Your task to perform on an android device: open app "eBay: The shopping marketplace" Image 0: 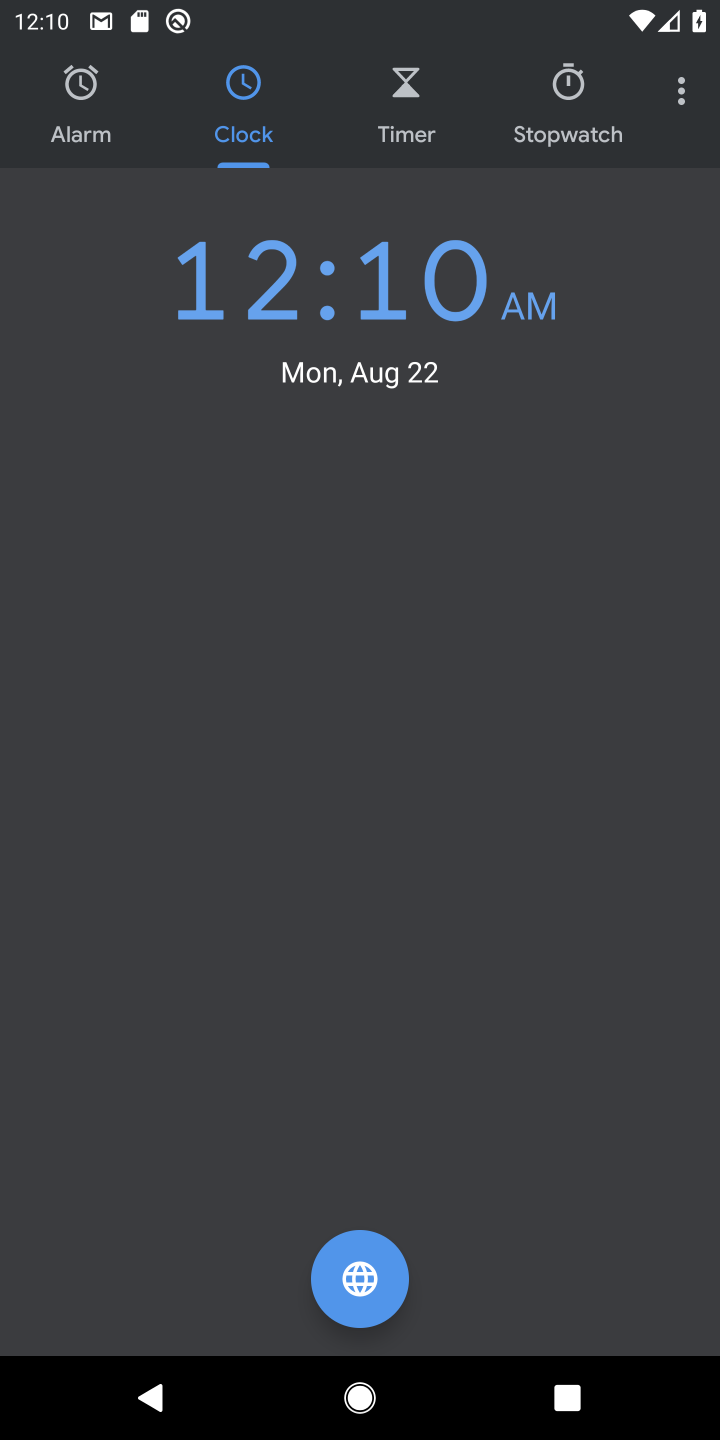
Step 0: press home button
Your task to perform on an android device: open app "eBay: The shopping marketplace" Image 1: 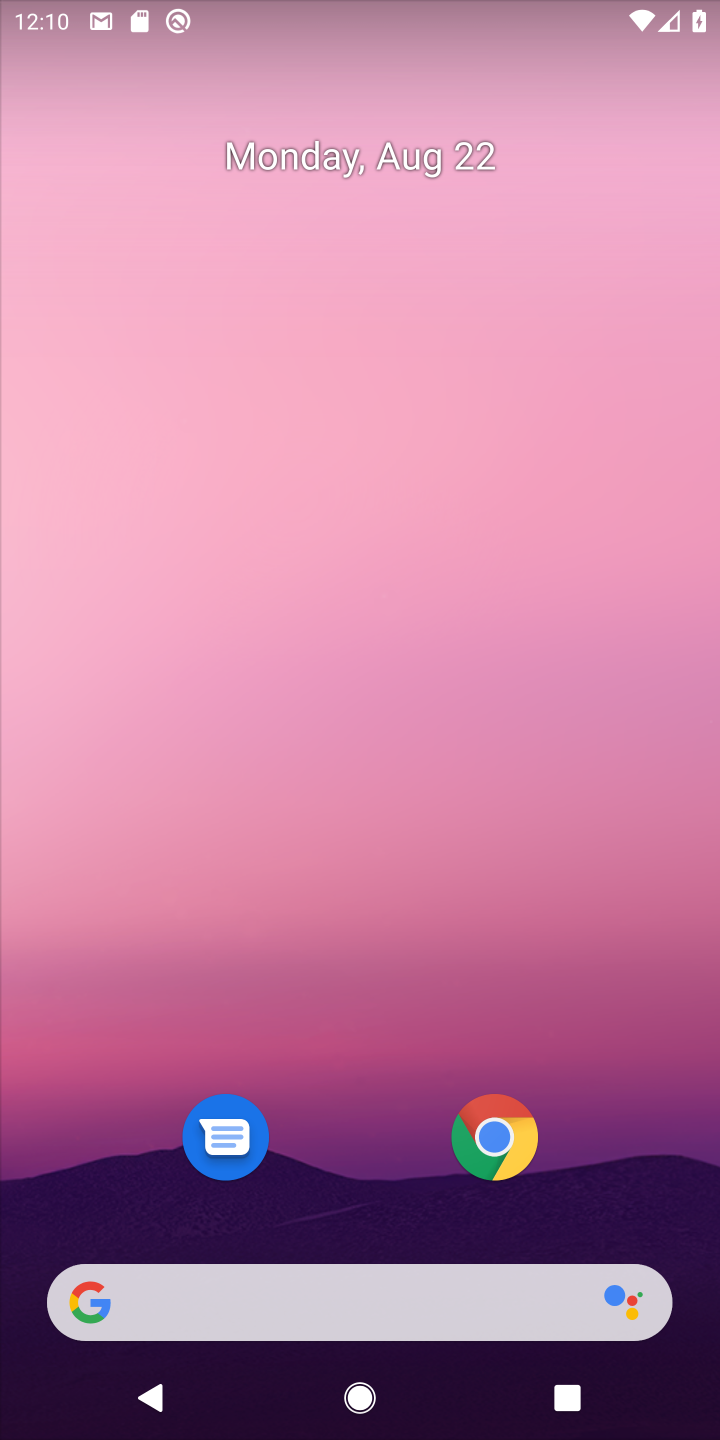
Step 1: drag from (664, 1211) to (538, 104)
Your task to perform on an android device: open app "eBay: The shopping marketplace" Image 2: 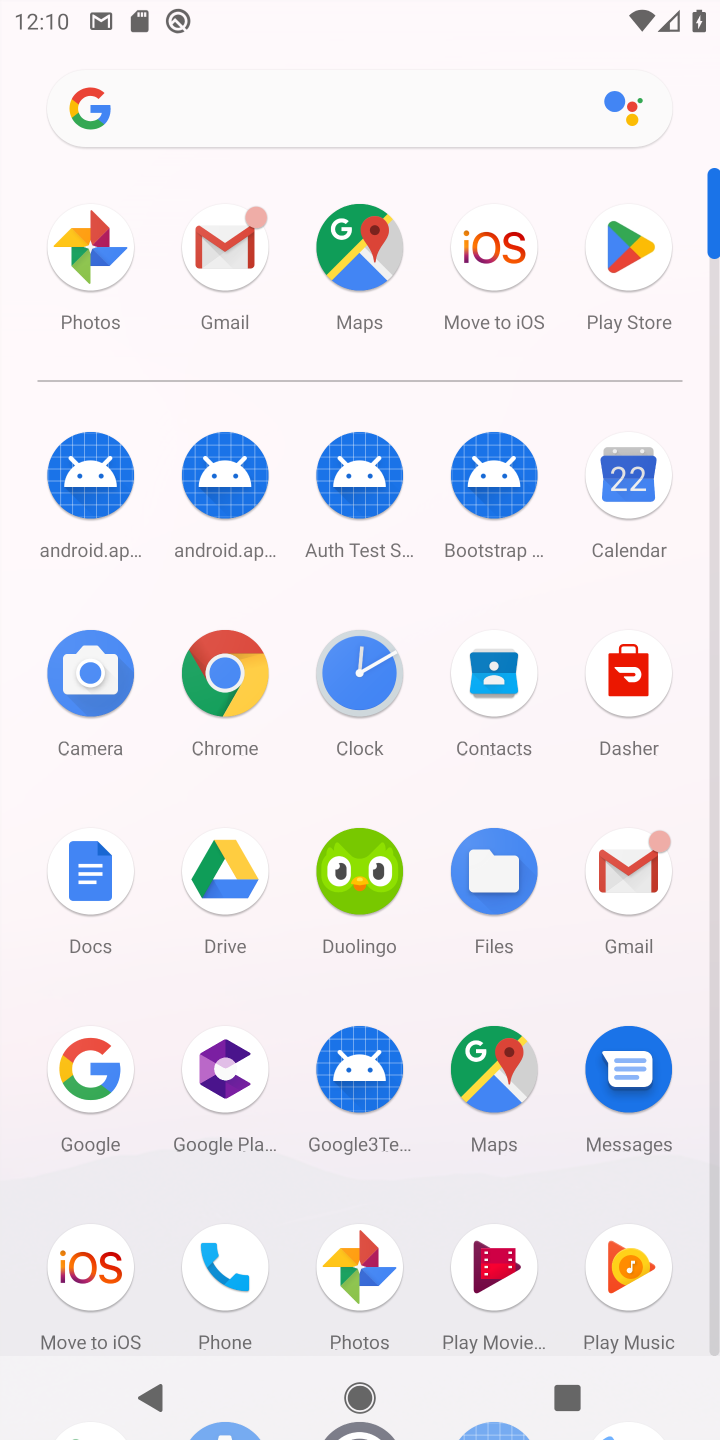
Step 2: drag from (562, 1193) to (503, 501)
Your task to perform on an android device: open app "eBay: The shopping marketplace" Image 3: 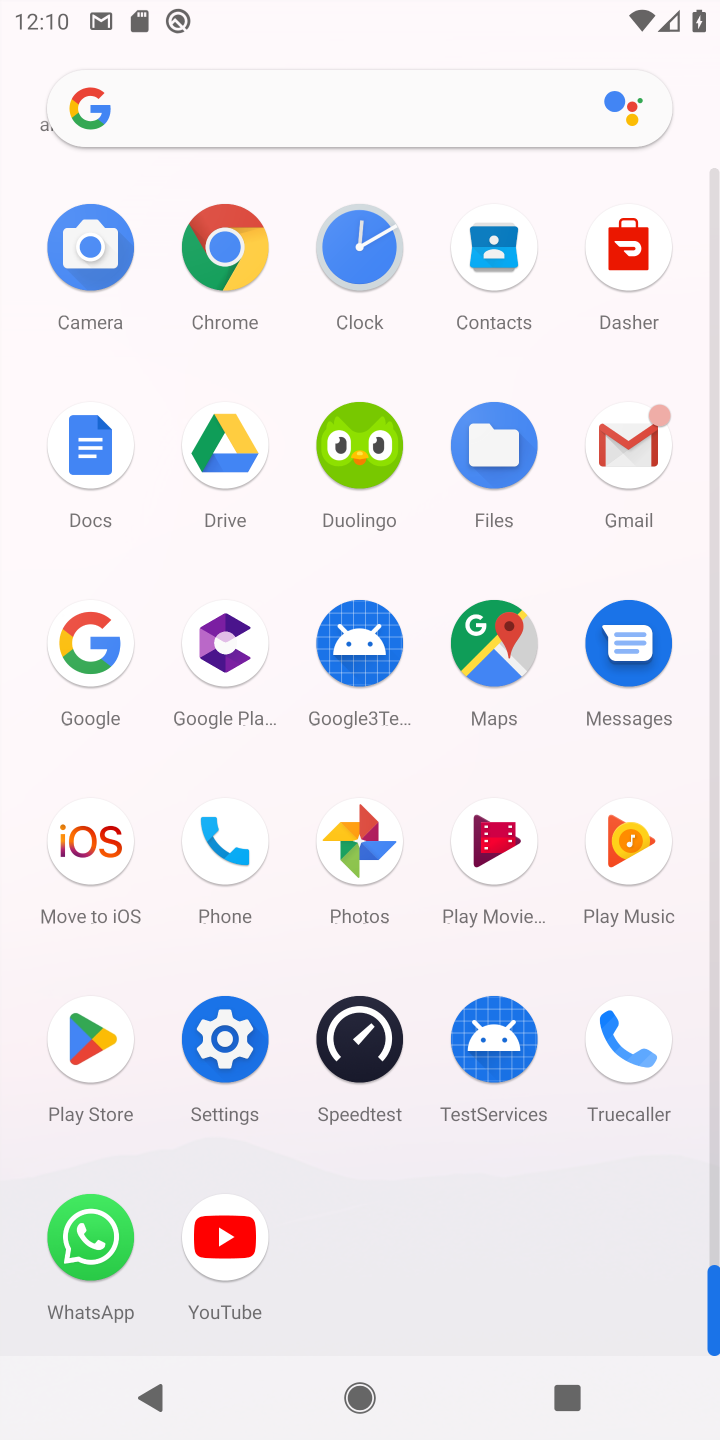
Step 3: click (96, 1042)
Your task to perform on an android device: open app "eBay: The shopping marketplace" Image 4: 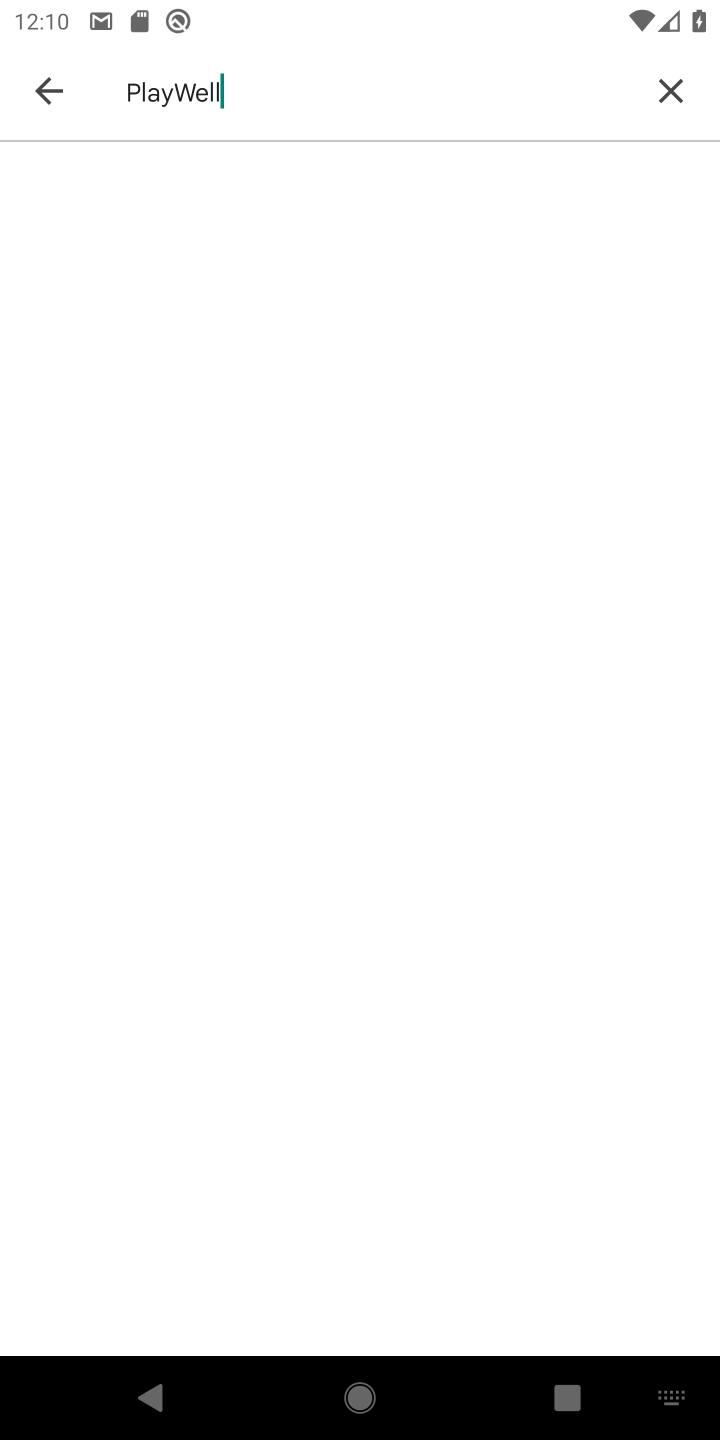
Step 4: click (668, 86)
Your task to perform on an android device: open app "eBay: The shopping marketplace" Image 5: 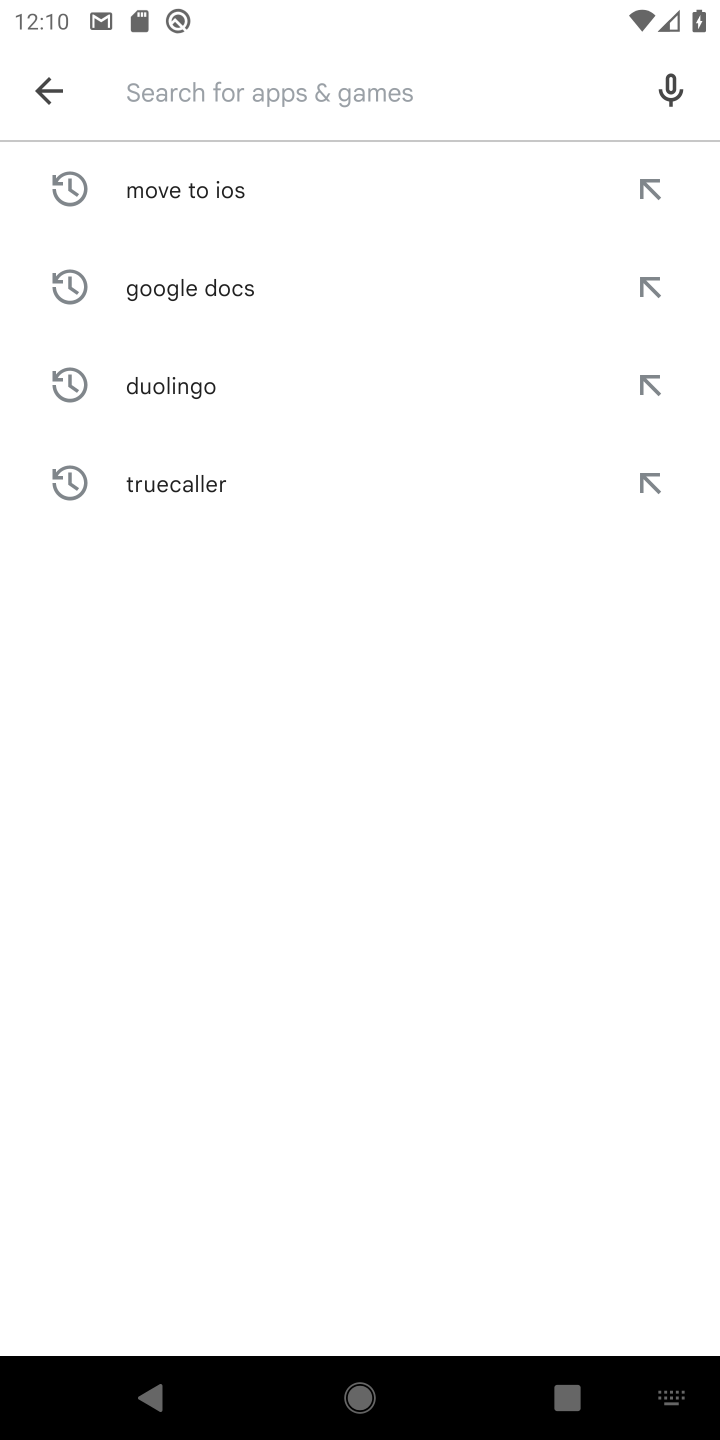
Step 5: type "eBay"
Your task to perform on an android device: open app "eBay: The shopping marketplace" Image 6: 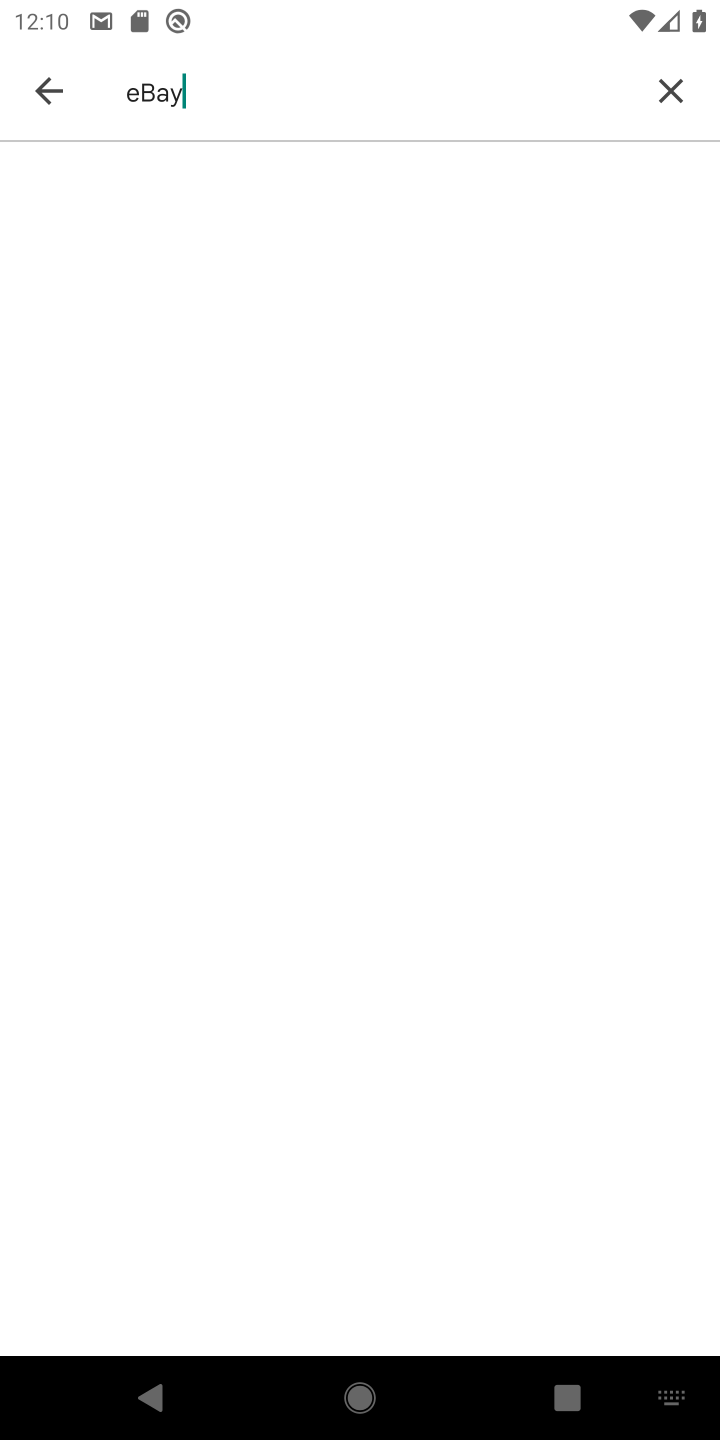
Step 6: task complete